Your task to perform on an android device: Search for sushi restaurants on Maps Image 0: 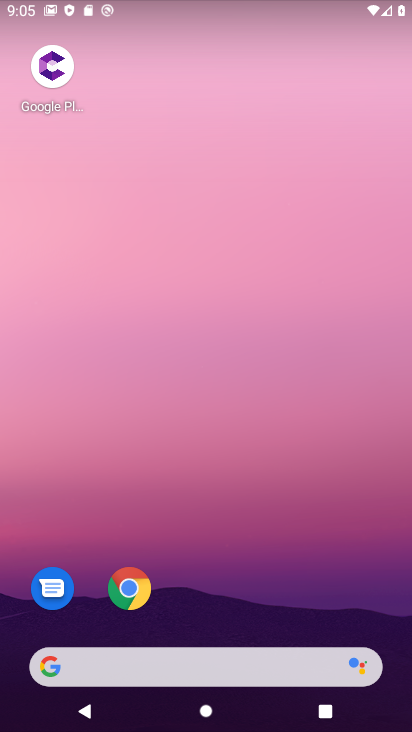
Step 0: drag from (212, 608) to (233, 25)
Your task to perform on an android device: Search for sushi restaurants on Maps Image 1: 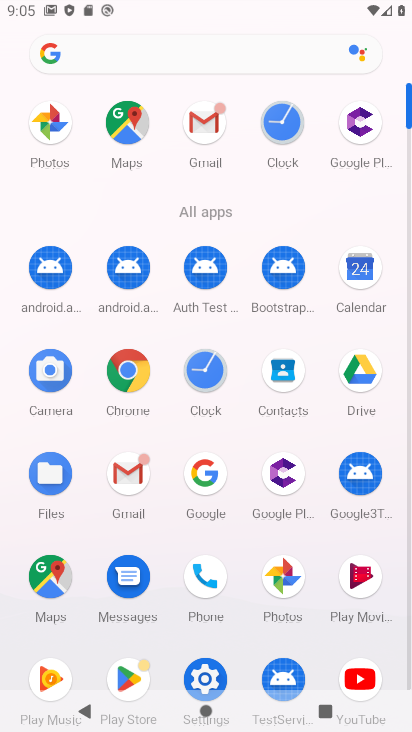
Step 1: click (129, 129)
Your task to perform on an android device: Search for sushi restaurants on Maps Image 2: 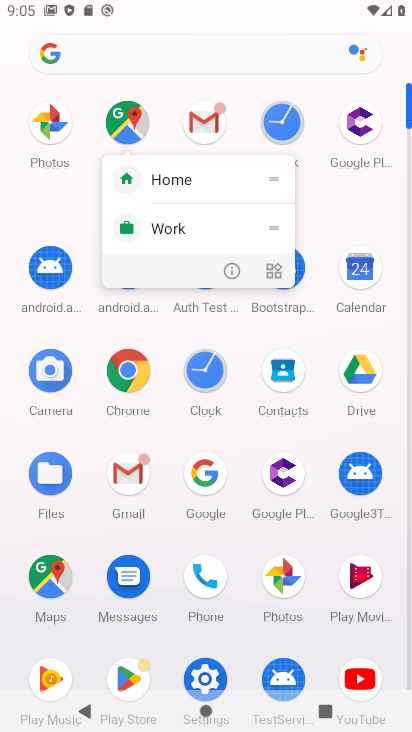
Step 2: click (129, 129)
Your task to perform on an android device: Search for sushi restaurants on Maps Image 3: 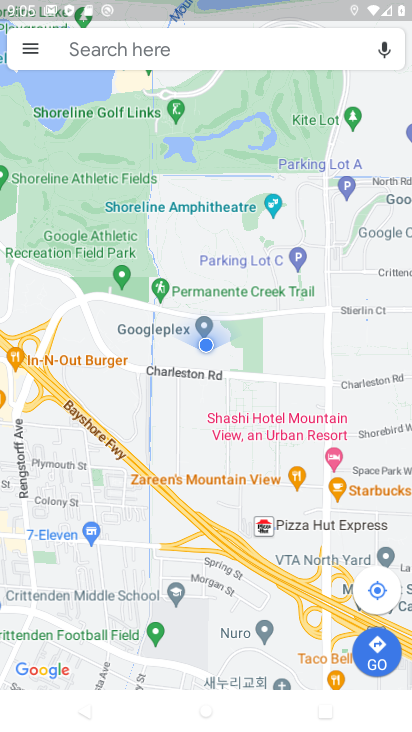
Step 3: click (202, 59)
Your task to perform on an android device: Search for sushi restaurants on Maps Image 4: 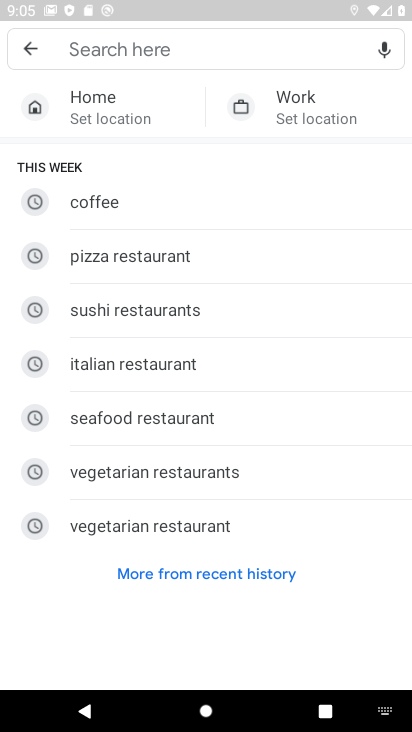
Step 4: type " sushi restaurants "
Your task to perform on an android device: Search for sushi restaurants on Maps Image 5: 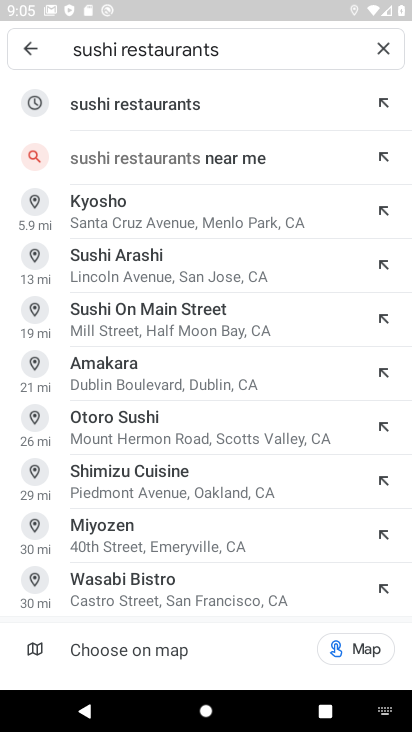
Step 5: click (149, 107)
Your task to perform on an android device: Search for sushi restaurants on Maps Image 6: 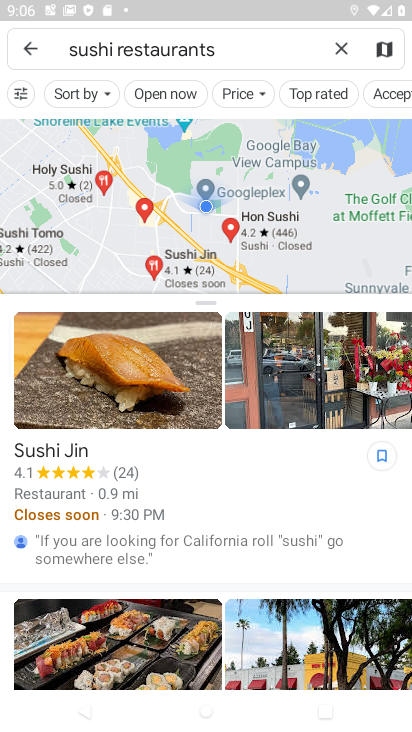
Step 6: task complete